Your task to perform on an android device: change the clock display to digital Image 0: 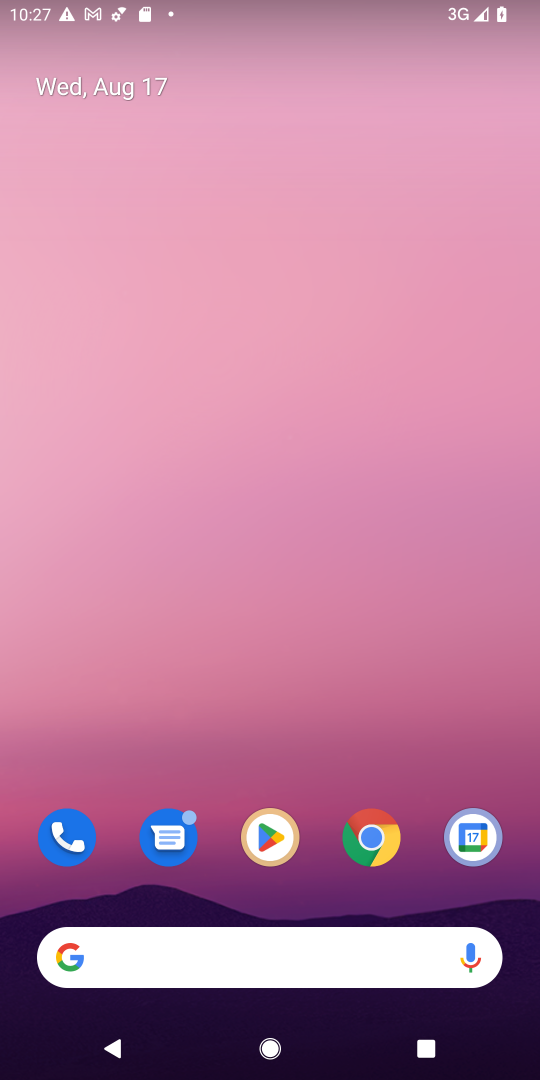
Step 0: drag from (247, 986) to (297, 150)
Your task to perform on an android device: change the clock display to digital Image 1: 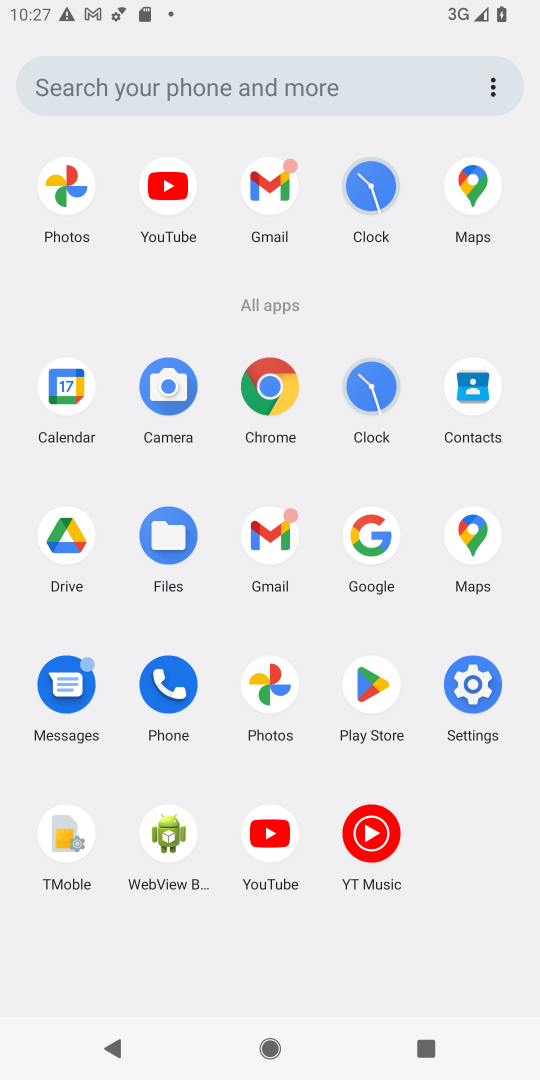
Step 1: click (374, 186)
Your task to perform on an android device: change the clock display to digital Image 2: 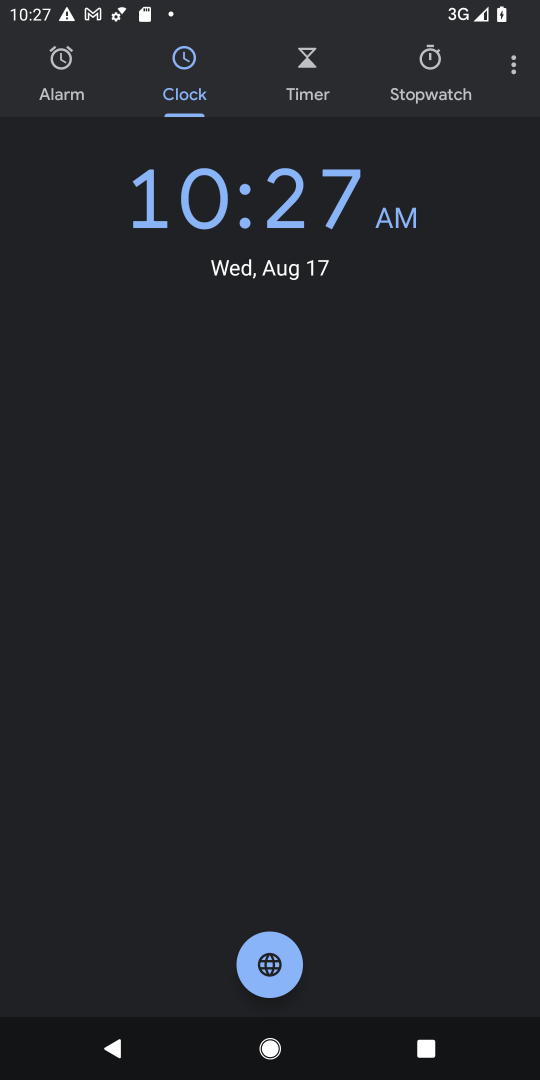
Step 2: click (517, 63)
Your task to perform on an android device: change the clock display to digital Image 3: 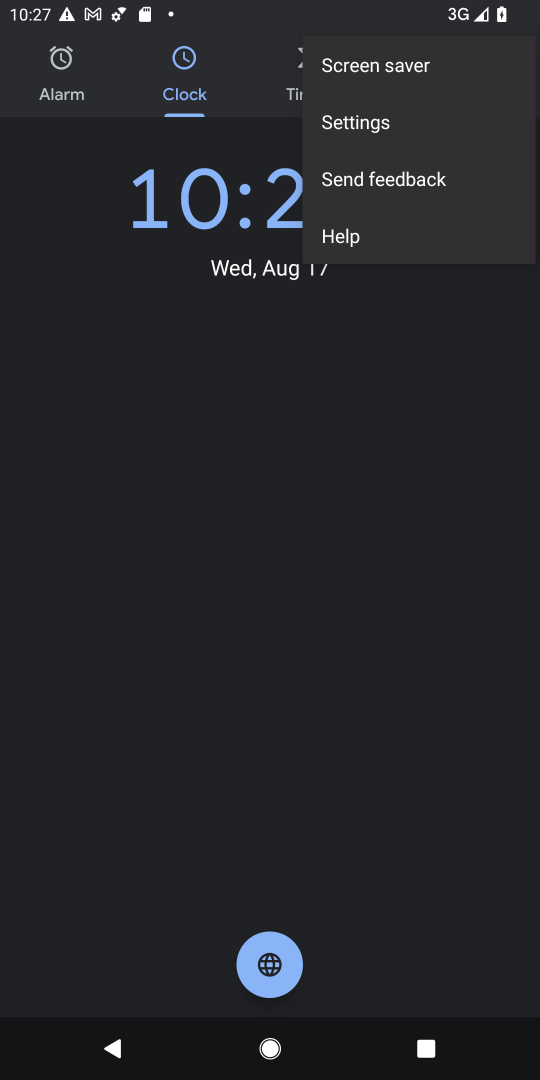
Step 3: click (393, 120)
Your task to perform on an android device: change the clock display to digital Image 4: 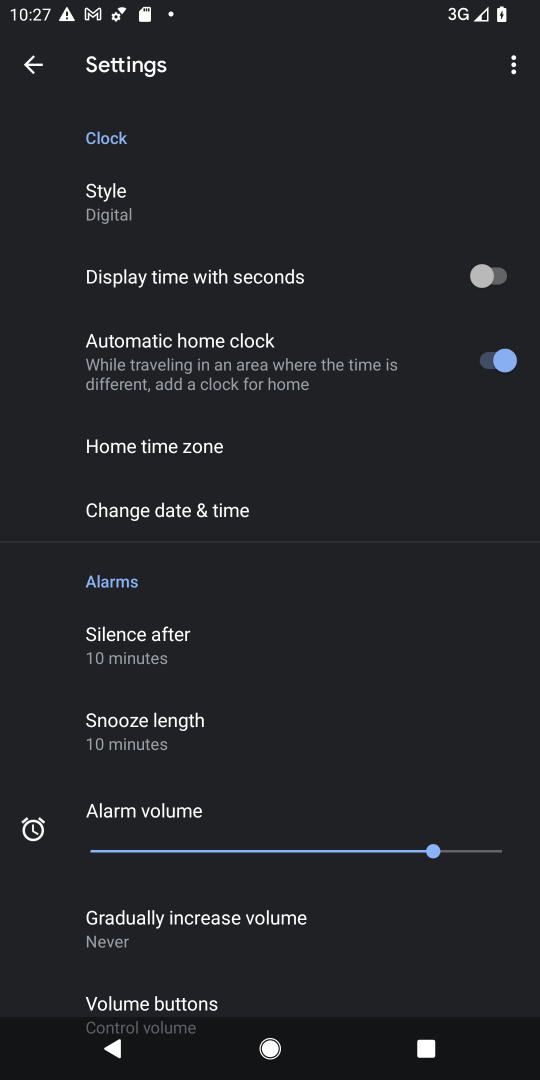
Step 4: click (132, 211)
Your task to perform on an android device: change the clock display to digital Image 5: 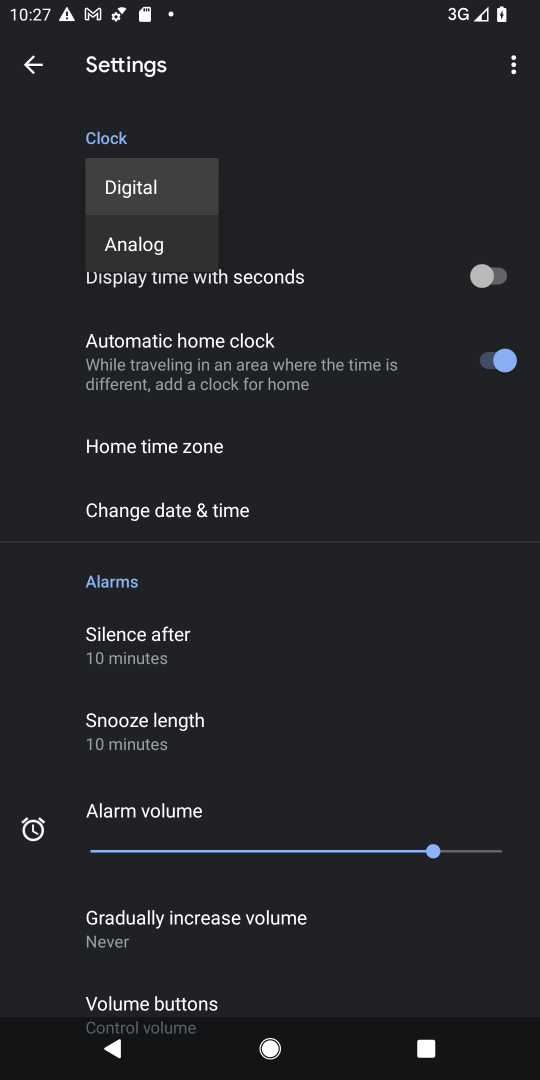
Step 5: click (140, 205)
Your task to perform on an android device: change the clock display to digital Image 6: 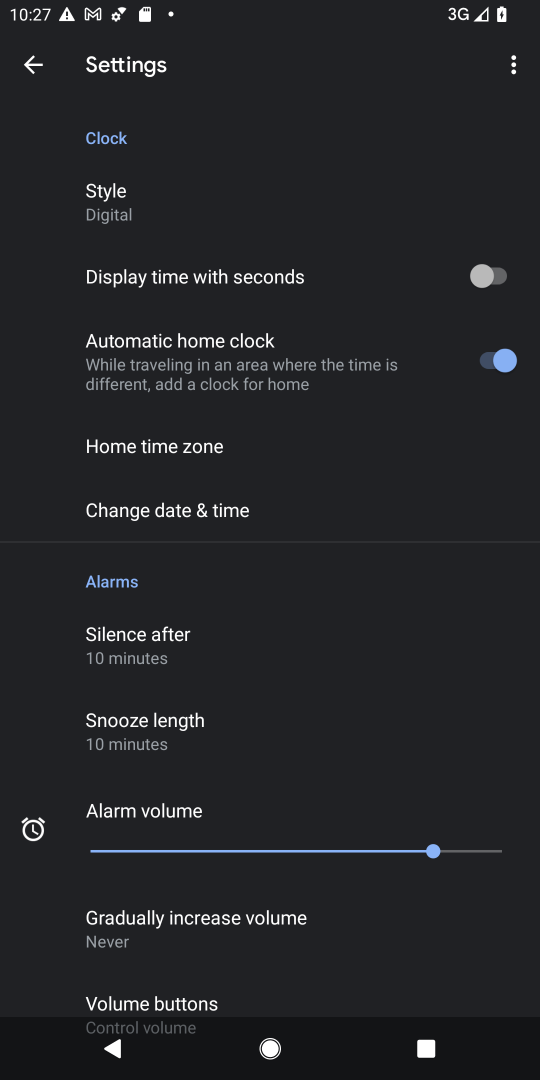
Step 6: task complete